Your task to perform on an android device: see tabs open on other devices in the chrome app Image 0: 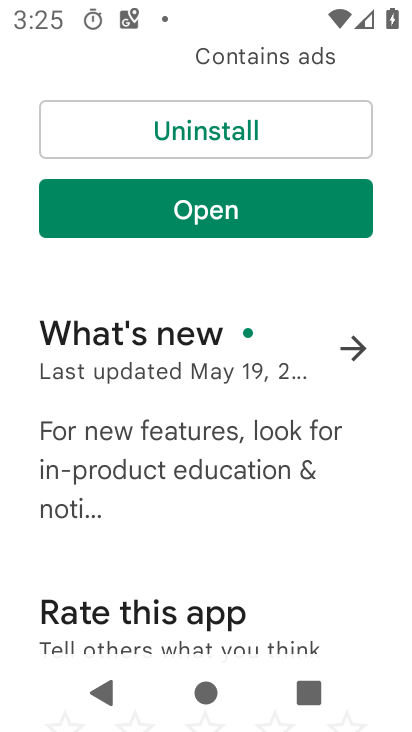
Step 0: press home button
Your task to perform on an android device: see tabs open on other devices in the chrome app Image 1: 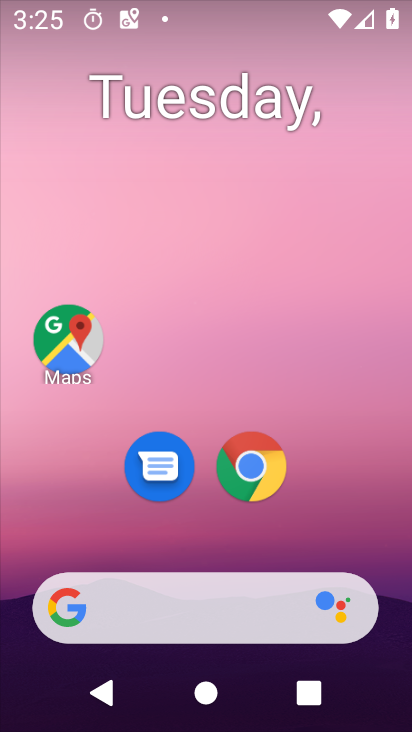
Step 1: drag from (343, 533) to (331, 177)
Your task to perform on an android device: see tabs open on other devices in the chrome app Image 2: 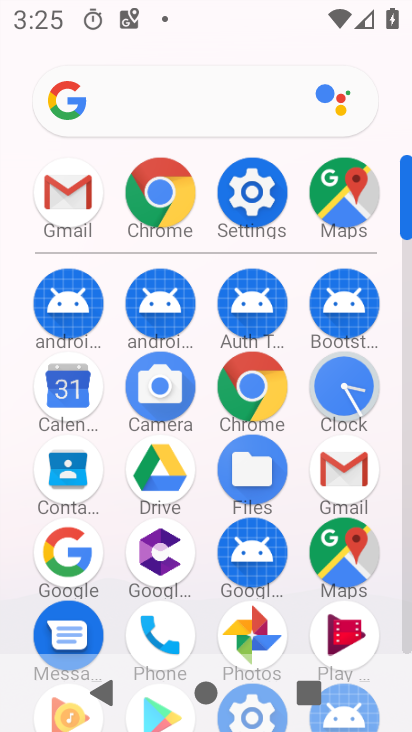
Step 2: click (275, 381)
Your task to perform on an android device: see tabs open on other devices in the chrome app Image 3: 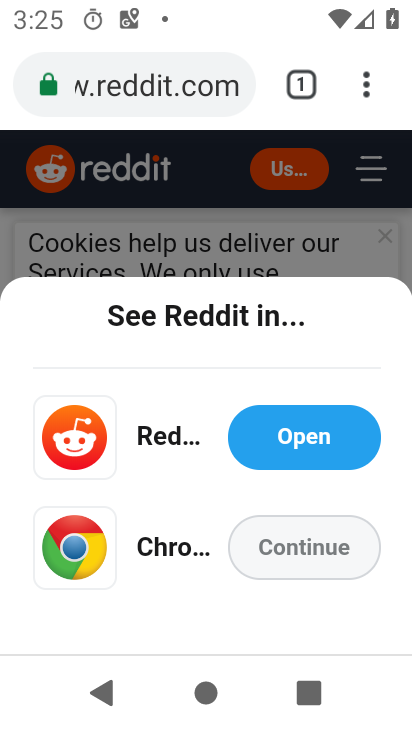
Step 3: click (365, 98)
Your task to perform on an android device: see tabs open on other devices in the chrome app Image 4: 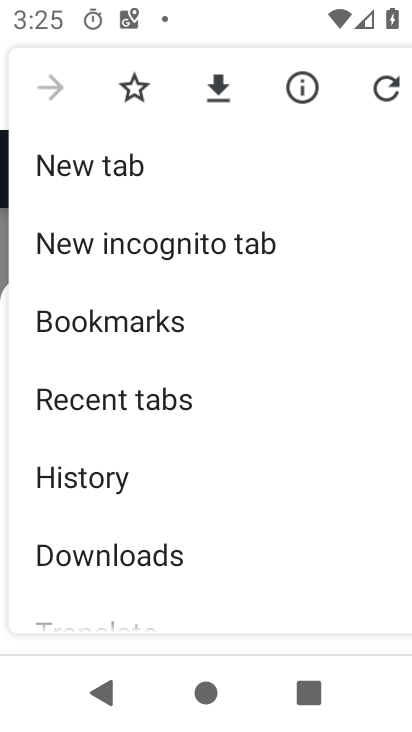
Step 4: click (191, 400)
Your task to perform on an android device: see tabs open on other devices in the chrome app Image 5: 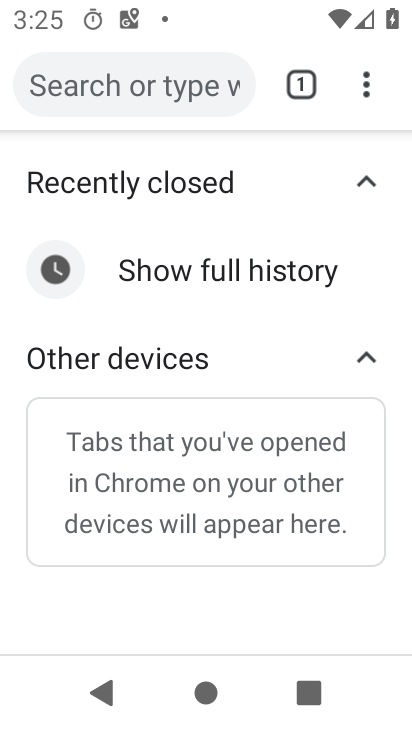
Step 5: click (305, 93)
Your task to perform on an android device: see tabs open on other devices in the chrome app Image 6: 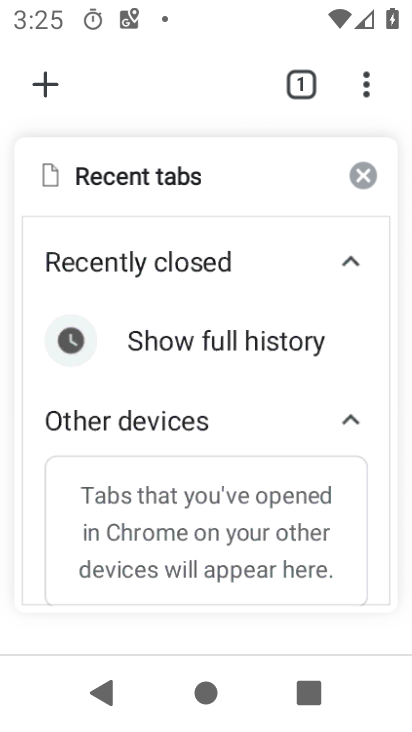
Step 6: task complete